Your task to perform on an android device: star an email in the gmail app Image 0: 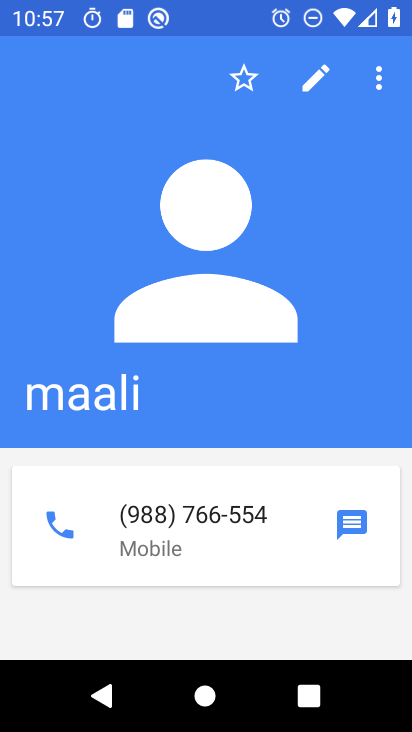
Step 0: press home button
Your task to perform on an android device: star an email in the gmail app Image 1: 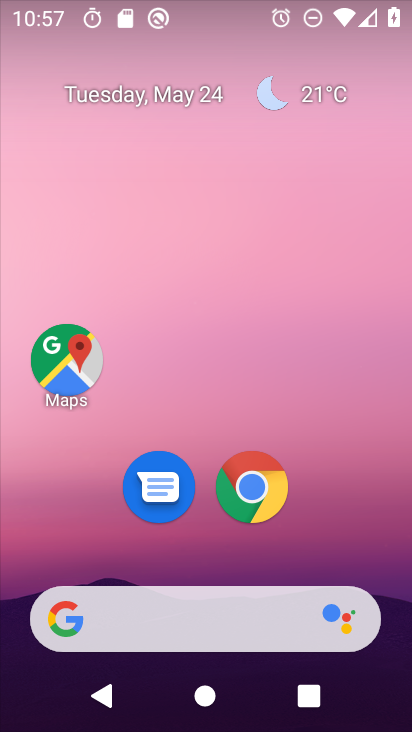
Step 1: drag from (366, 568) to (351, 10)
Your task to perform on an android device: star an email in the gmail app Image 2: 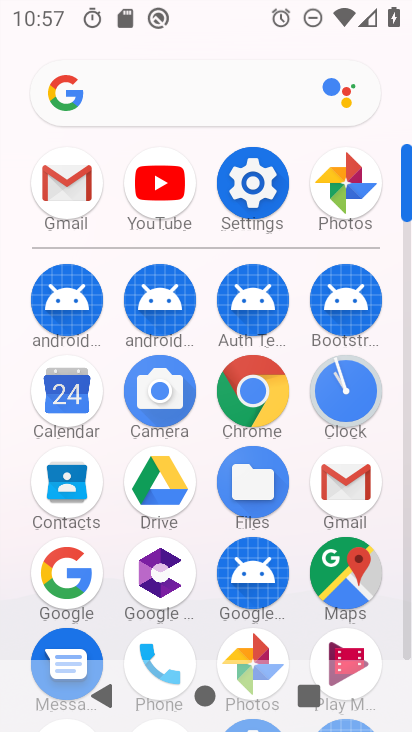
Step 2: click (60, 184)
Your task to perform on an android device: star an email in the gmail app Image 3: 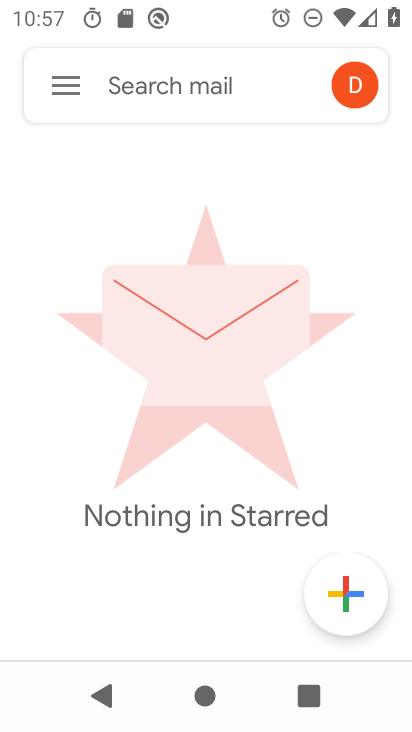
Step 3: click (68, 89)
Your task to perform on an android device: star an email in the gmail app Image 4: 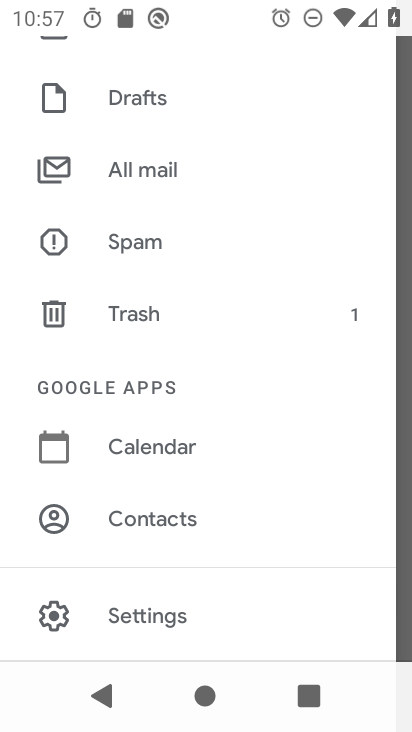
Step 4: click (155, 172)
Your task to perform on an android device: star an email in the gmail app Image 5: 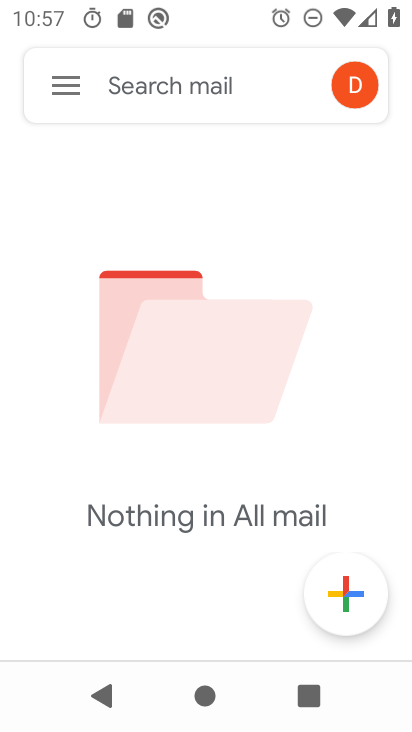
Step 5: task complete